Your task to perform on an android device: Open Yahoo.com Image 0: 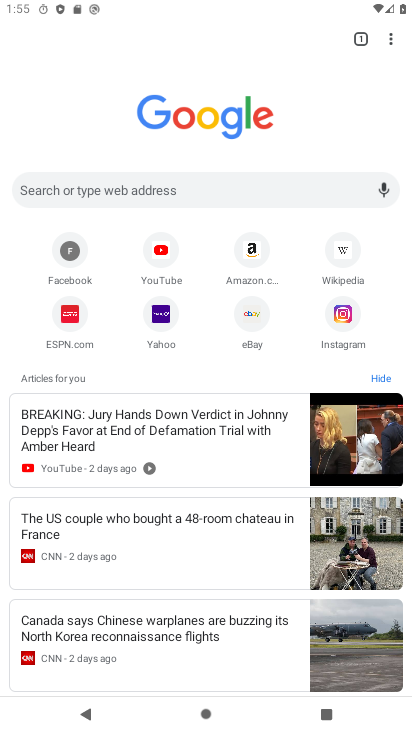
Step 0: click (161, 328)
Your task to perform on an android device: Open Yahoo.com Image 1: 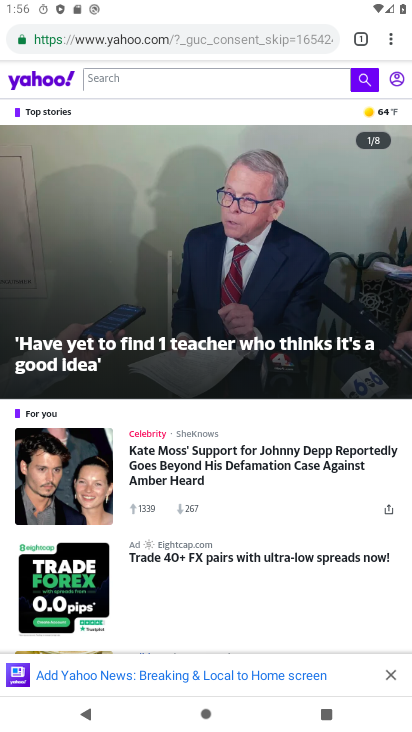
Step 1: task complete